Your task to perform on an android device: check android version Image 0: 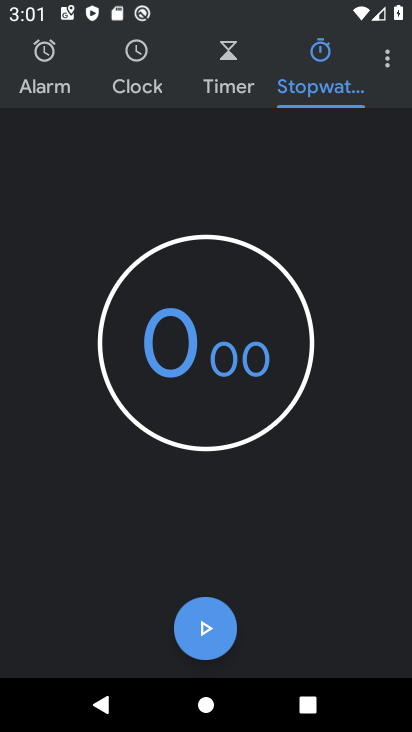
Step 0: press home button
Your task to perform on an android device: check android version Image 1: 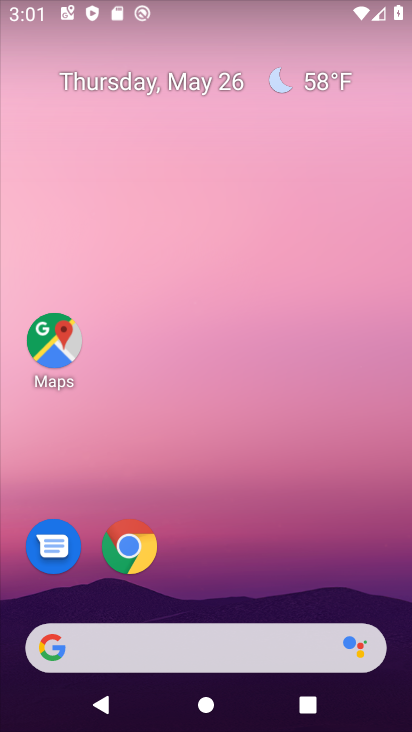
Step 1: drag from (223, 551) to (195, 86)
Your task to perform on an android device: check android version Image 2: 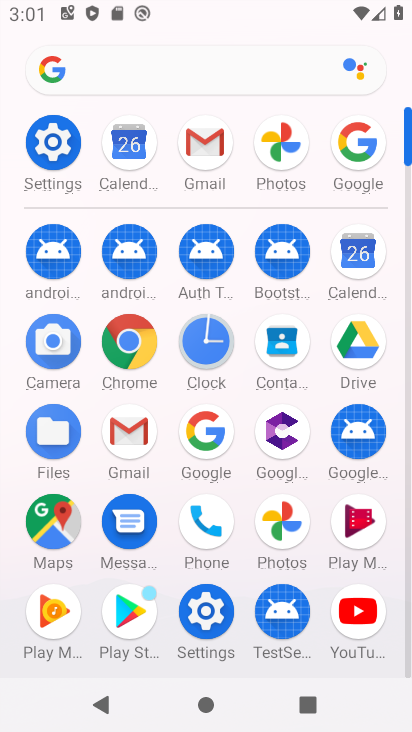
Step 2: click (214, 613)
Your task to perform on an android device: check android version Image 3: 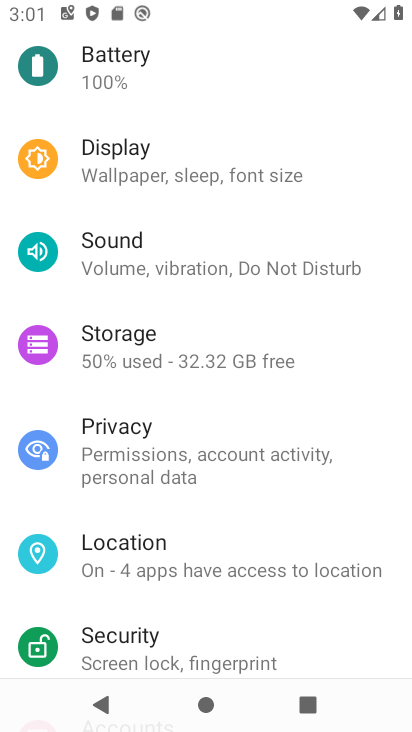
Step 3: drag from (185, 643) to (191, 203)
Your task to perform on an android device: check android version Image 4: 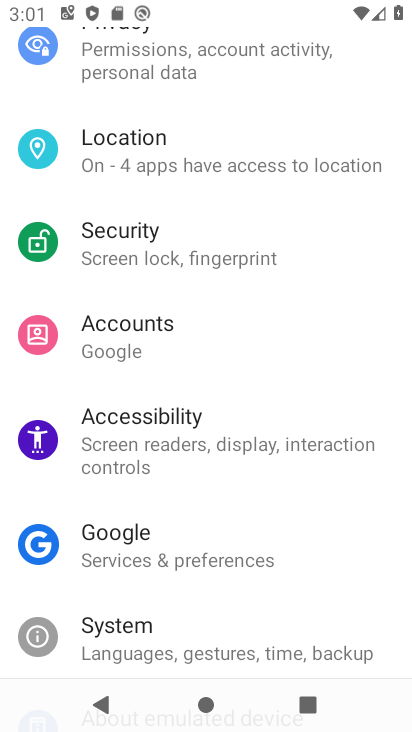
Step 4: drag from (183, 644) to (199, 97)
Your task to perform on an android device: check android version Image 5: 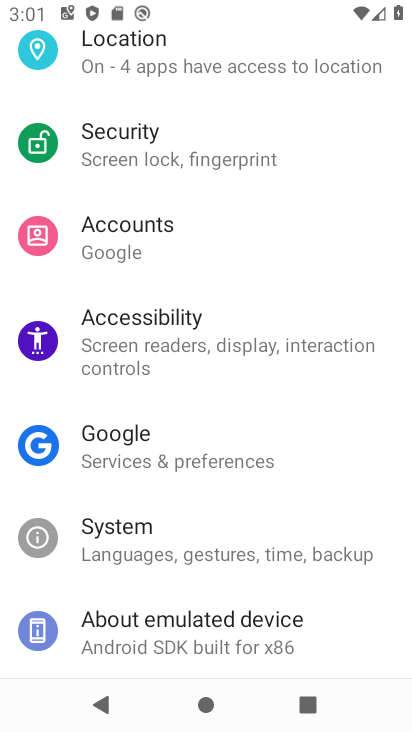
Step 5: click (222, 620)
Your task to perform on an android device: check android version Image 6: 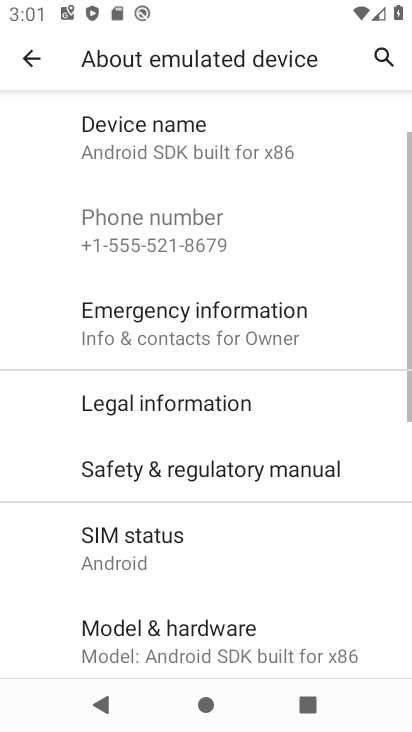
Step 6: drag from (182, 621) to (183, 167)
Your task to perform on an android device: check android version Image 7: 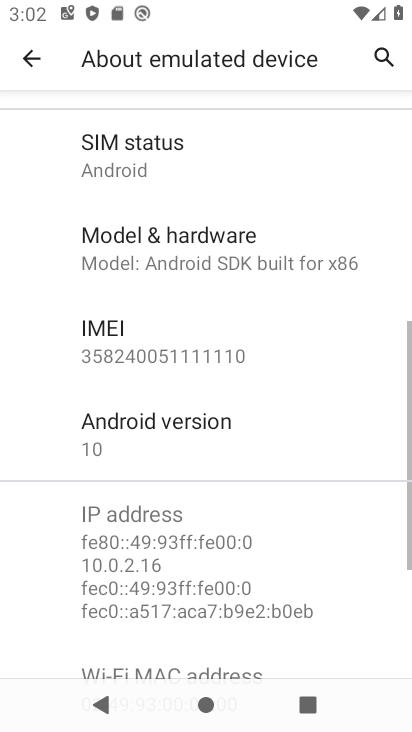
Step 7: click (162, 438)
Your task to perform on an android device: check android version Image 8: 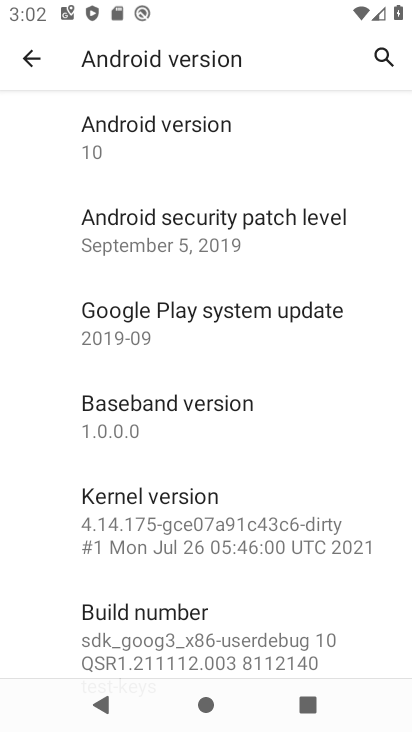
Step 8: task complete